Your task to perform on an android device: toggle pop-ups in chrome Image 0: 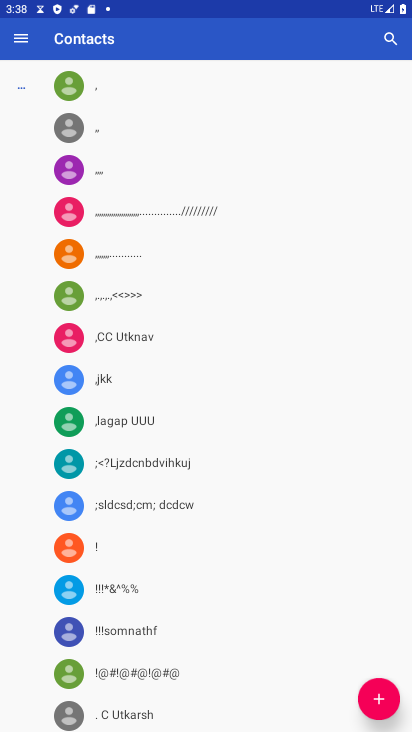
Step 0: press home button
Your task to perform on an android device: toggle pop-ups in chrome Image 1: 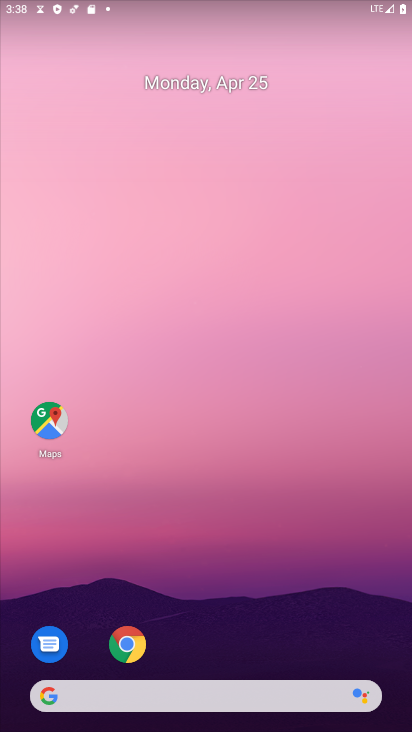
Step 1: click (132, 639)
Your task to perform on an android device: toggle pop-ups in chrome Image 2: 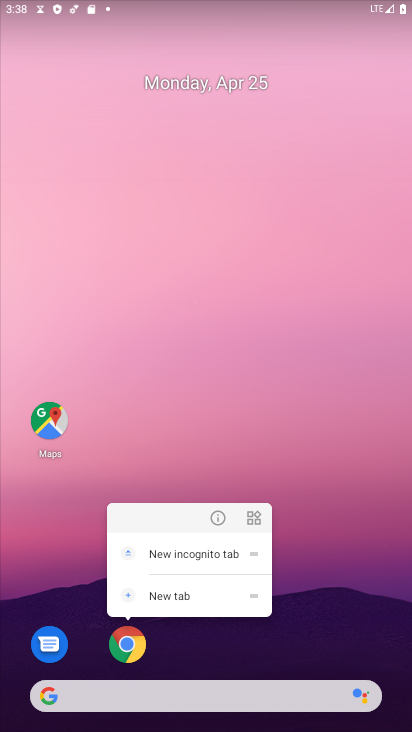
Step 2: click (200, 639)
Your task to perform on an android device: toggle pop-ups in chrome Image 3: 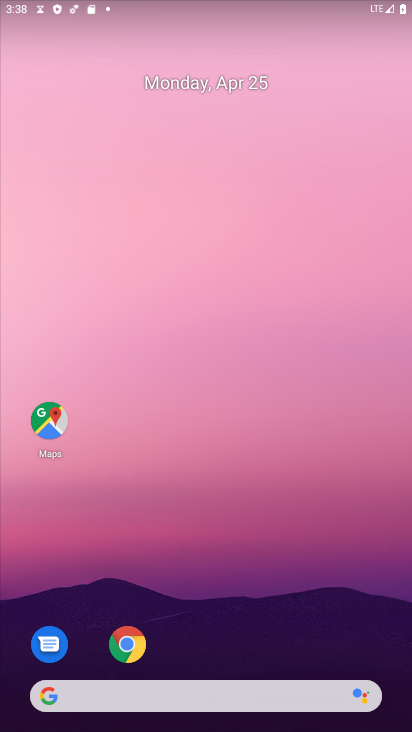
Step 3: drag from (250, 666) to (215, 152)
Your task to perform on an android device: toggle pop-ups in chrome Image 4: 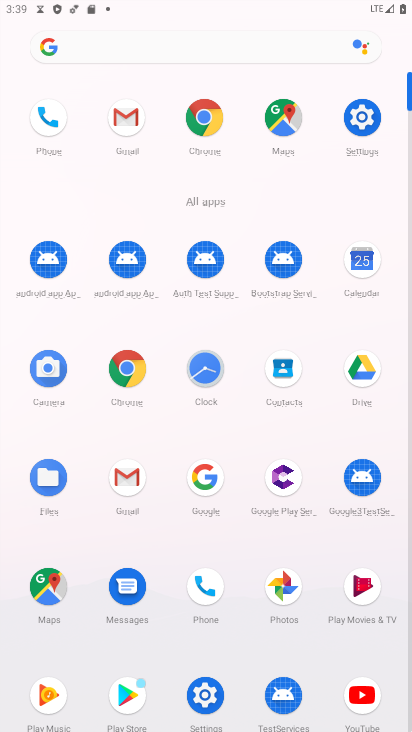
Step 4: click (125, 364)
Your task to perform on an android device: toggle pop-ups in chrome Image 5: 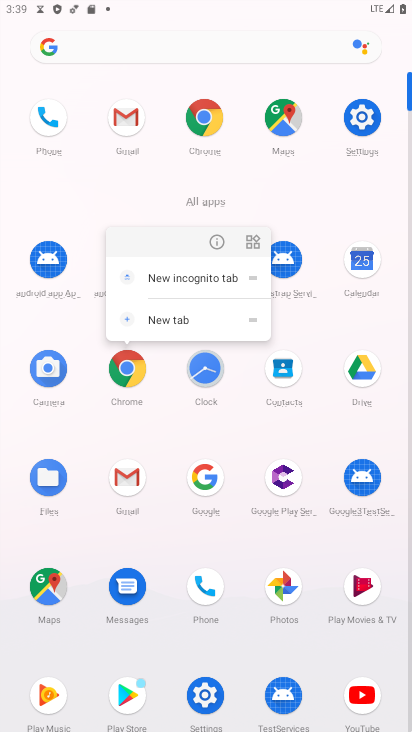
Step 5: click (126, 364)
Your task to perform on an android device: toggle pop-ups in chrome Image 6: 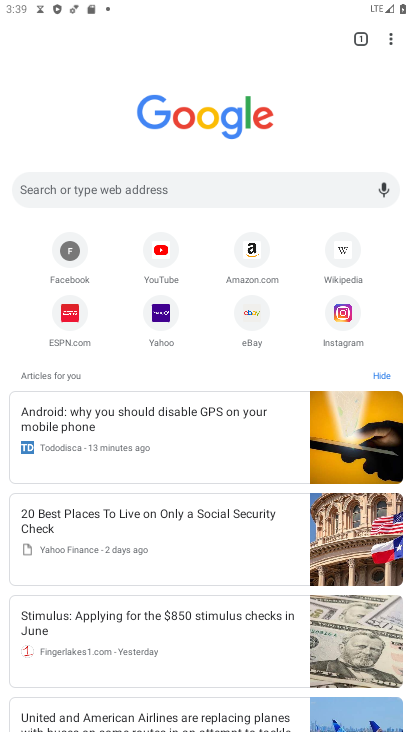
Step 6: click (389, 32)
Your task to perform on an android device: toggle pop-ups in chrome Image 7: 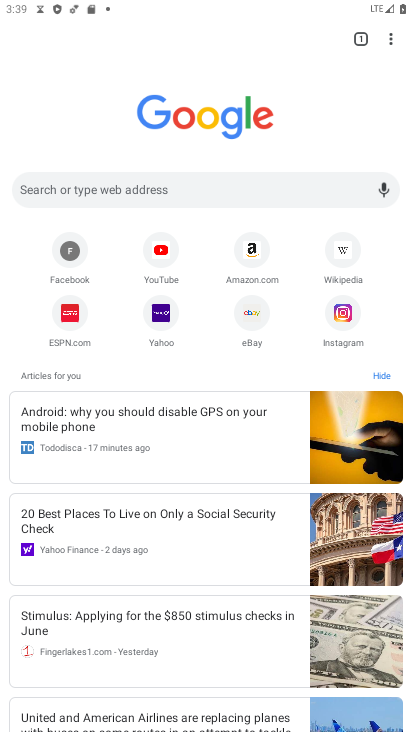
Step 7: click (386, 27)
Your task to perform on an android device: toggle pop-ups in chrome Image 8: 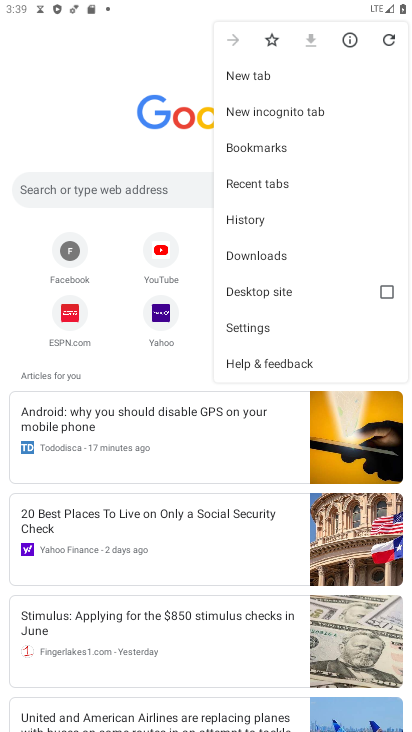
Step 8: click (267, 331)
Your task to perform on an android device: toggle pop-ups in chrome Image 9: 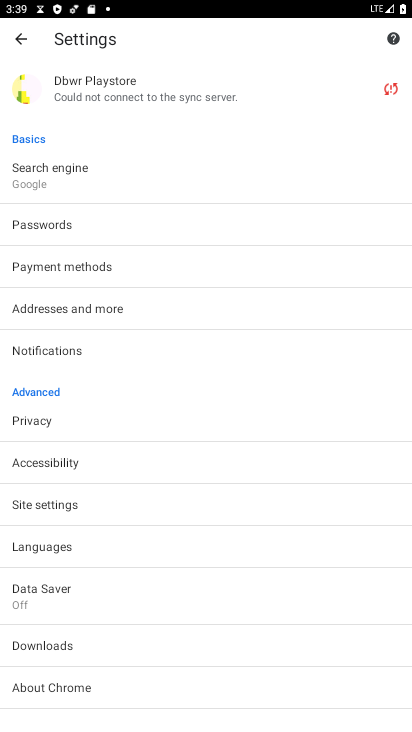
Step 9: click (95, 511)
Your task to perform on an android device: toggle pop-ups in chrome Image 10: 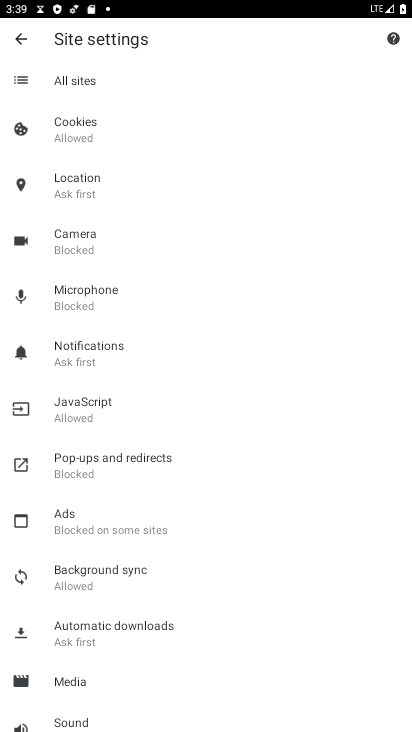
Step 10: click (110, 469)
Your task to perform on an android device: toggle pop-ups in chrome Image 11: 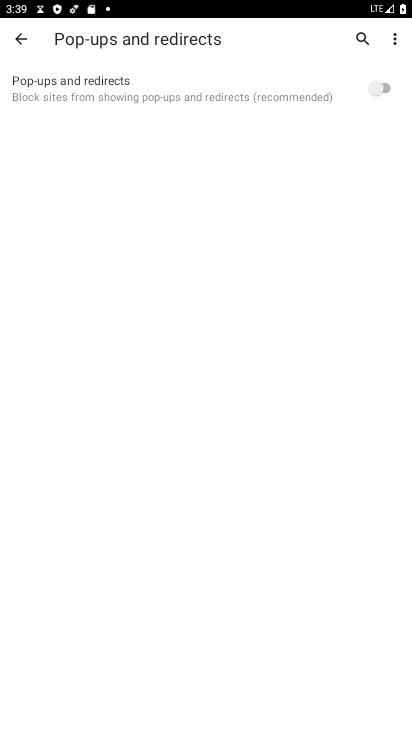
Step 11: click (372, 79)
Your task to perform on an android device: toggle pop-ups in chrome Image 12: 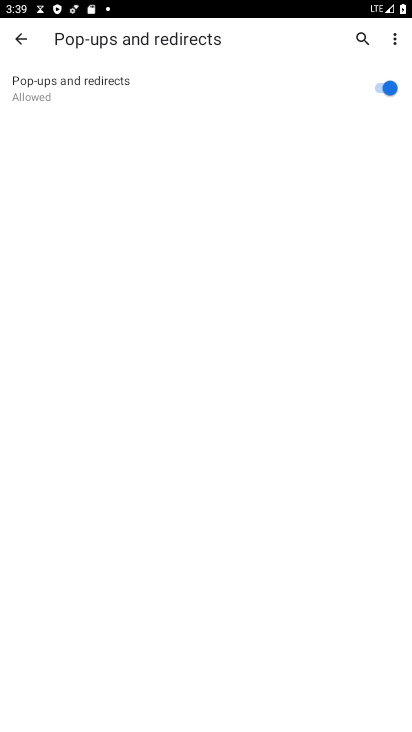
Step 12: task complete